Your task to perform on an android device: toggle location history Image 0: 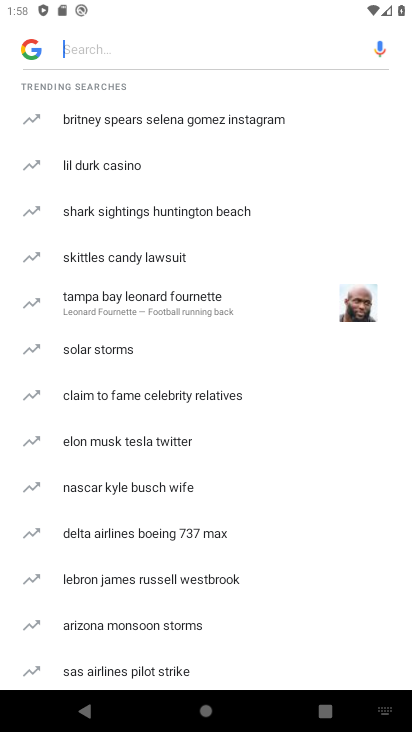
Step 0: press home button
Your task to perform on an android device: toggle location history Image 1: 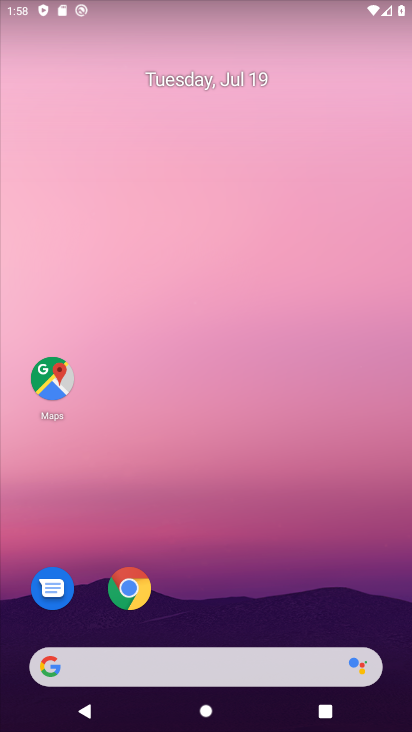
Step 1: drag from (262, 669) to (330, 215)
Your task to perform on an android device: toggle location history Image 2: 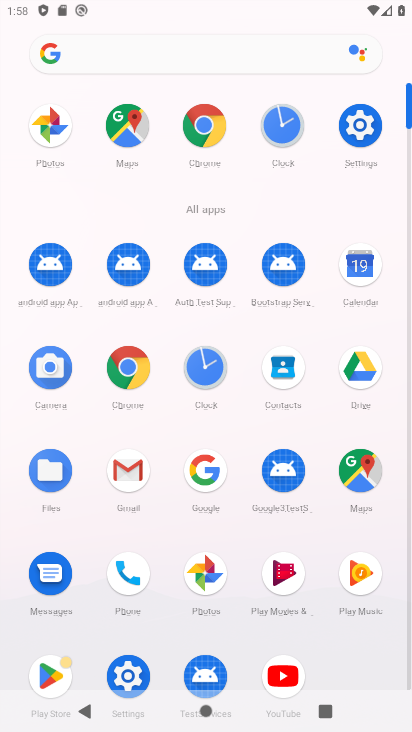
Step 2: click (135, 677)
Your task to perform on an android device: toggle location history Image 3: 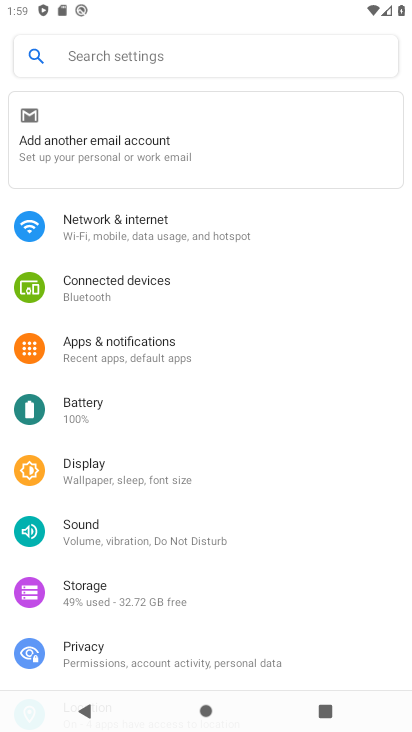
Step 3: drag from (152, 663) to (238, 436)
Your task to perform on an android device: toggle location history Image 4: 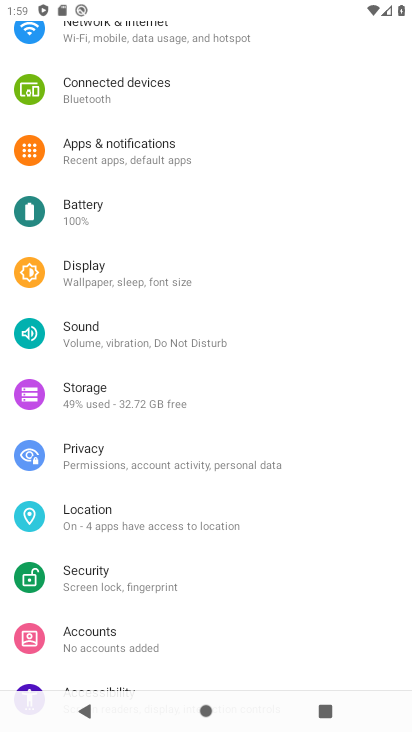
Step 4: click (121, 524)
Your task to perform on an android device: toggle location history Image 5: 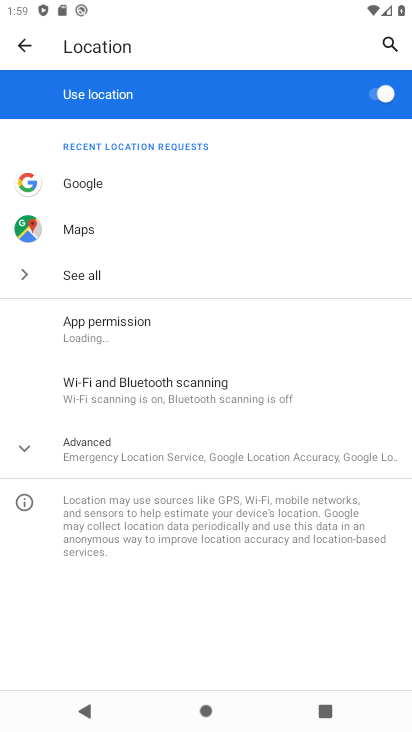
Step 5: click (176, 457)
Your task to perform on an android device: toggle location history Image 6: 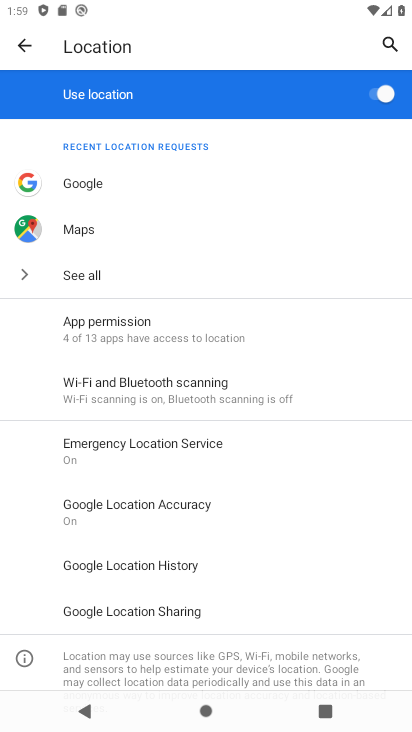
Step 6: click (221, 566)
Your task to perform on an android device: toggle location history Image 7: 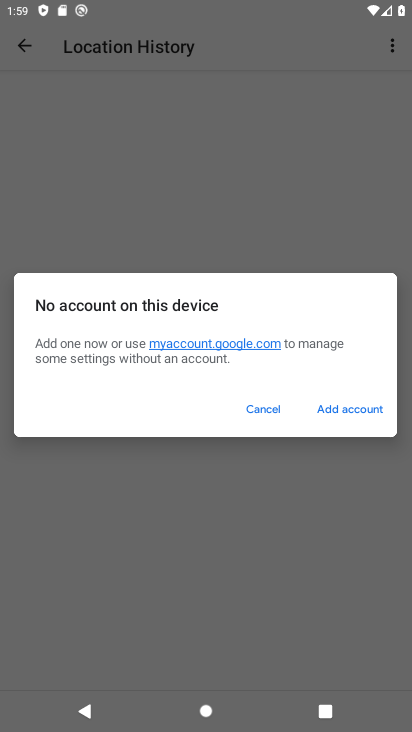
Step 7: task complete